Your task to perform on an android device: turn off sleep mode Image 0: 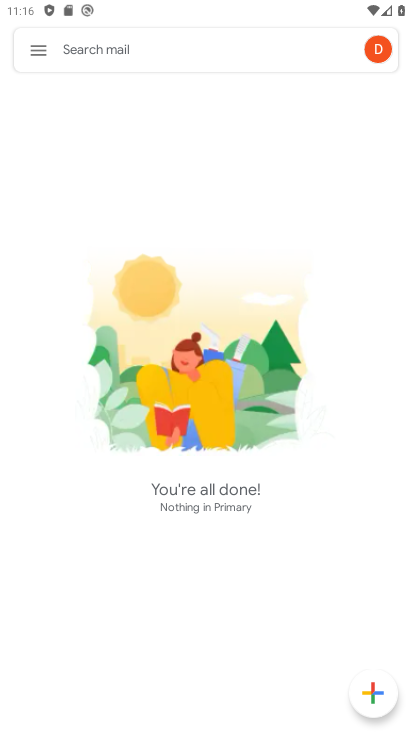
Step 0: press home button
Your task to perform on an android device: turn off sleep mode Image 1: 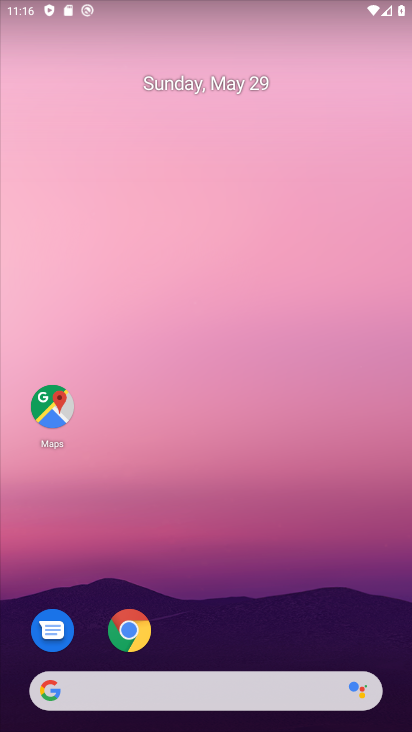
Step 1: drag from (138, 13) to (186, 664)
Your task to perform on an android device: turn off sleep mode Image 2: 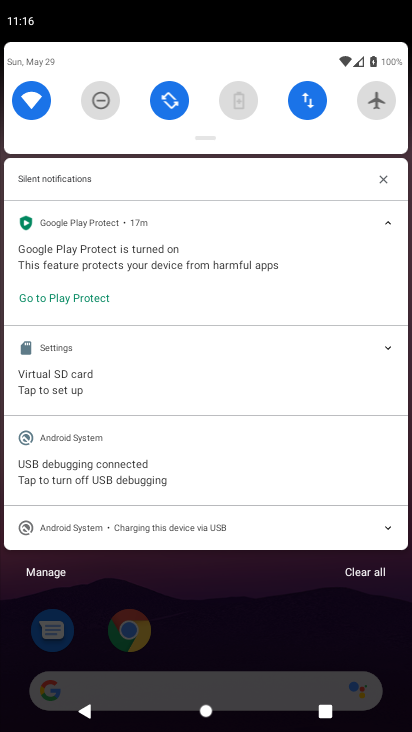
Step 2: drag from (202, 138) to (233, 682)
Your task to perform on an android device: turn off sleep mode Image 3: 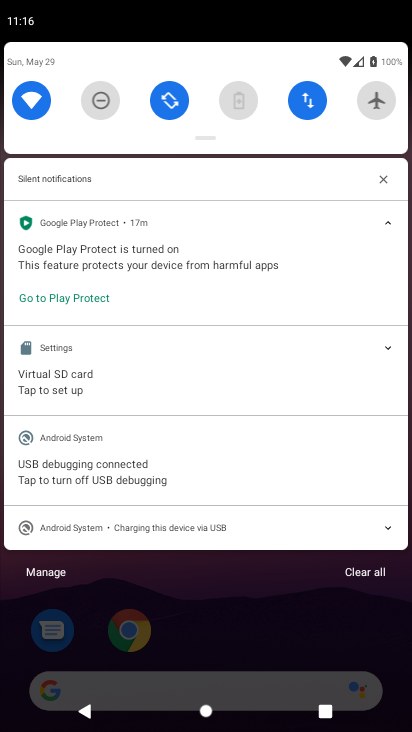
Step 3: drag from (199, 144) to (184, 673)
Your task to perform on an android device: turn off sleep mode Image 4: 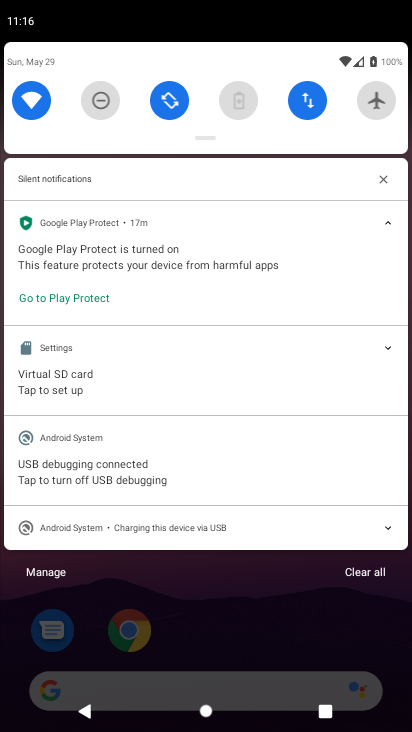
Step 4: drag from (203, 135) to (197, 585)
Your task to perform on an android device: turn off sleep mode Image 5: 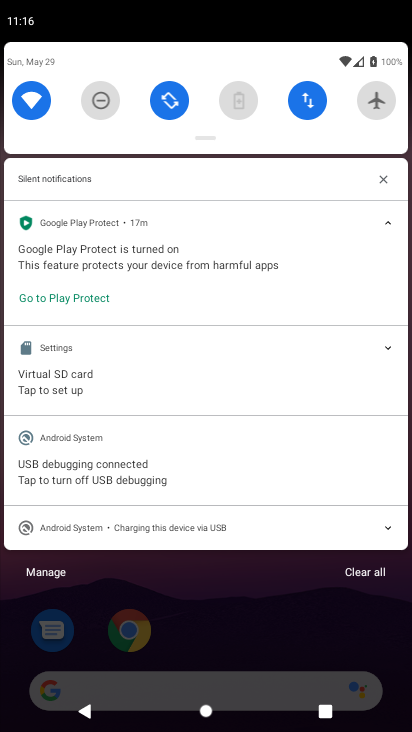
Step 5: drag from (205, 135) to (213, 649)
Your task to perform on an android device: turn off sleep mode Image 6: 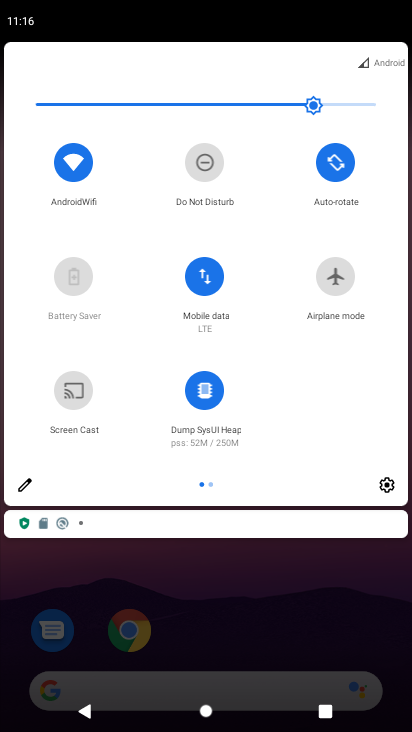
Step 6: click (19, 482)
Your task to perform on an android device: turn off sleep mode Image 7: 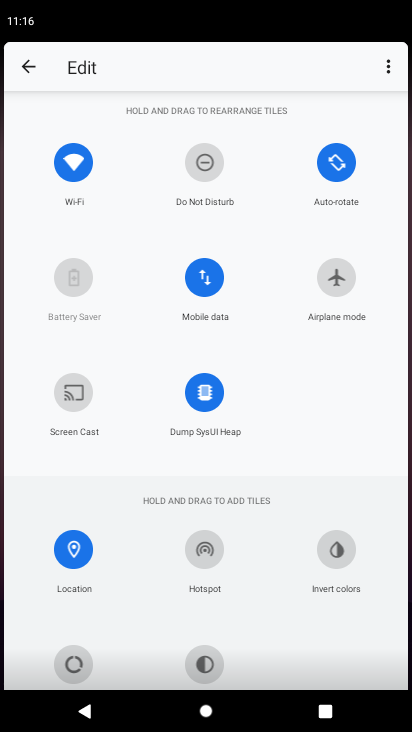
Step 7: task complete